Your task to perform on an android device: turn off smart reply in the gmail app Image 0: 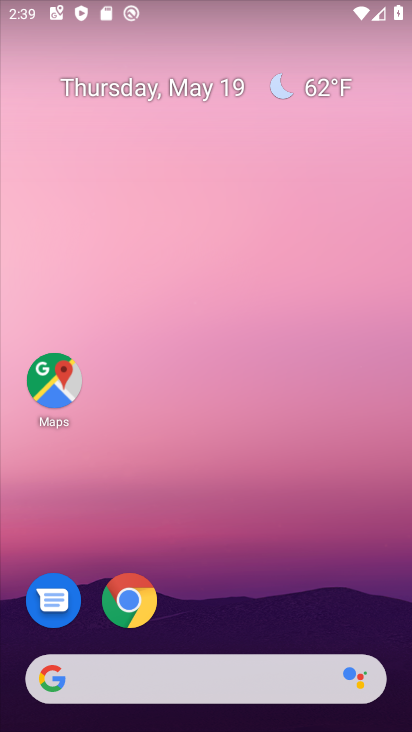
Step 0: drag from (15, 595) to (193, 165)
Your task to perform on an android device: turn off smart reply in the gmail app Image 1: 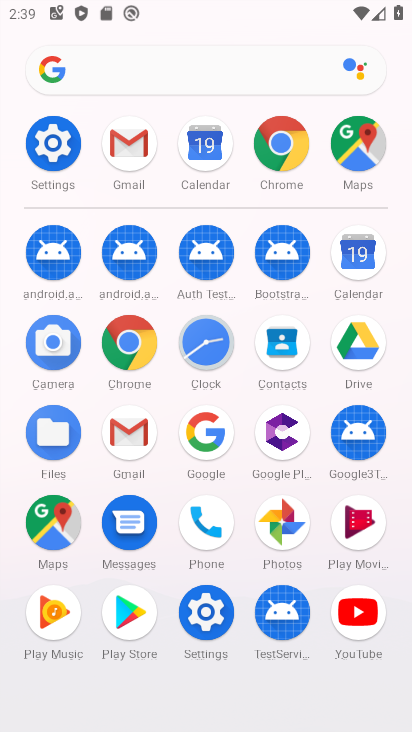
Step 1: click (130, 447)
Your task to perform on an android device: turn off smart reply in the gmail app Image 2: 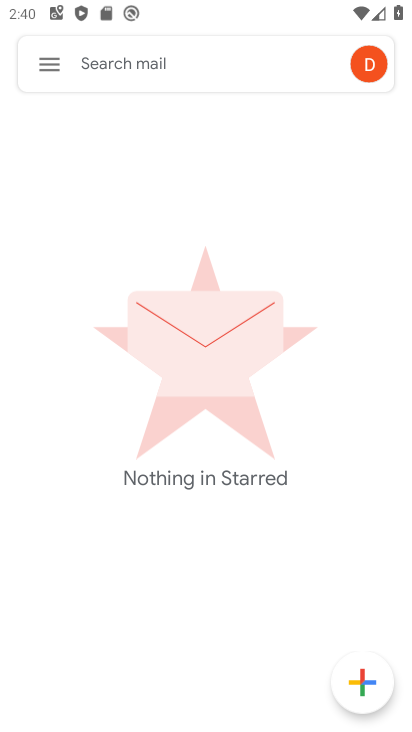
Step 2: click (52, 63)
Your task to perform on an android device: turn off smart reply in the gmail app Image 3: 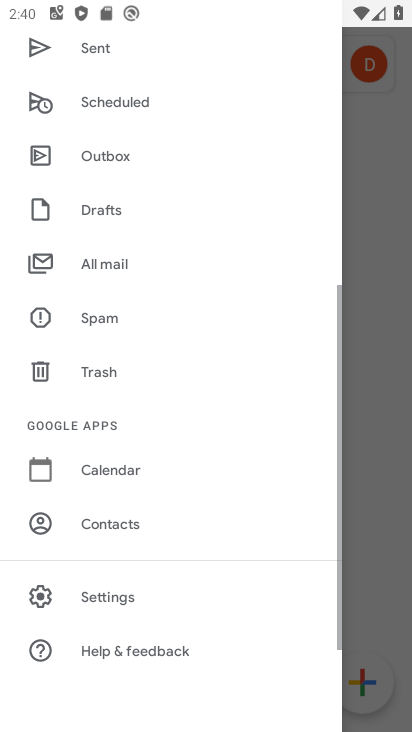
Step 3: click (106, 589)
Your task to perform on an android device: turn off smart reply in the gmail app Image 4: 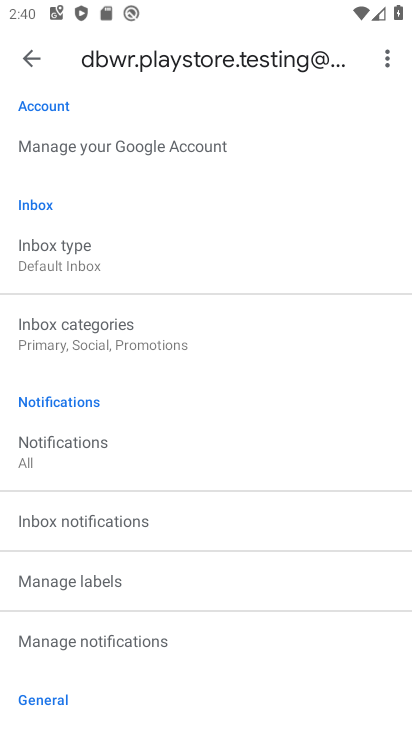
Step 4: drag from (58, 627) to (164, 164)
Your task to perform on an android device: turn off smart reply in the gmail app Image 5: 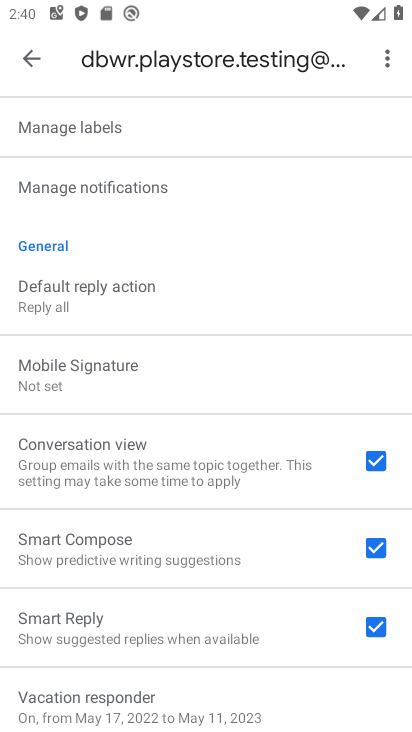
Step 5: click (371, 627)
Your task to perform on an android device: turn off smart reply in the gmail app Image 6: 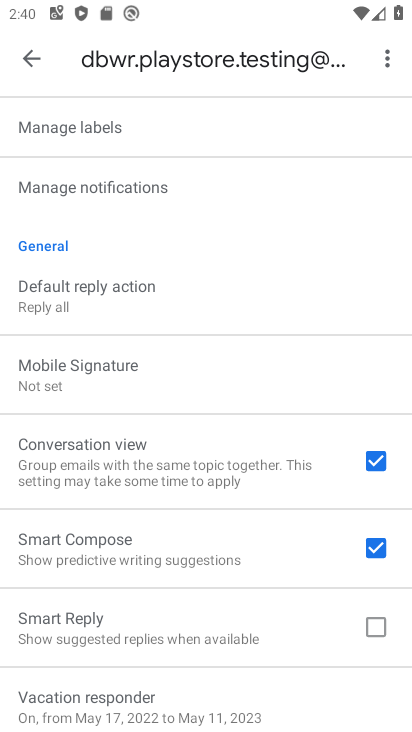
Step 6: task complete